Your task to perform on an android device: Open location settings Image 0: 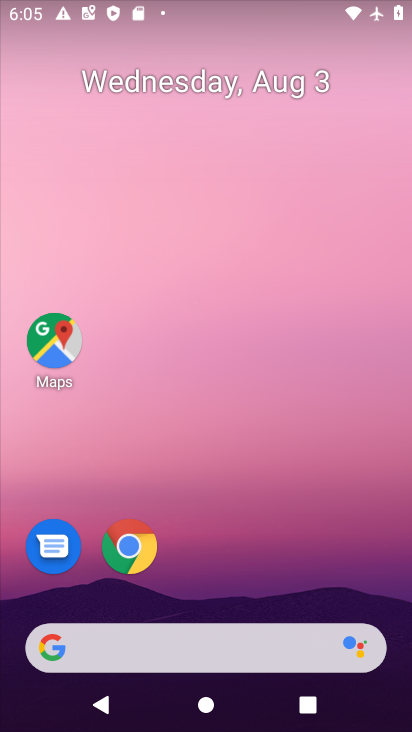
Step 0: press home button
Your task to perform on an android device: Open location settings Image 1: 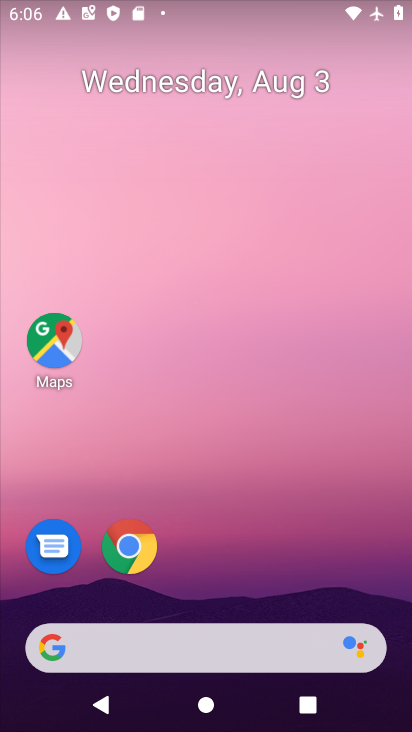
Step 1: drag from (230, 619) to (313, 140)
Your task to perform on an android device: Open location settings Image 2: 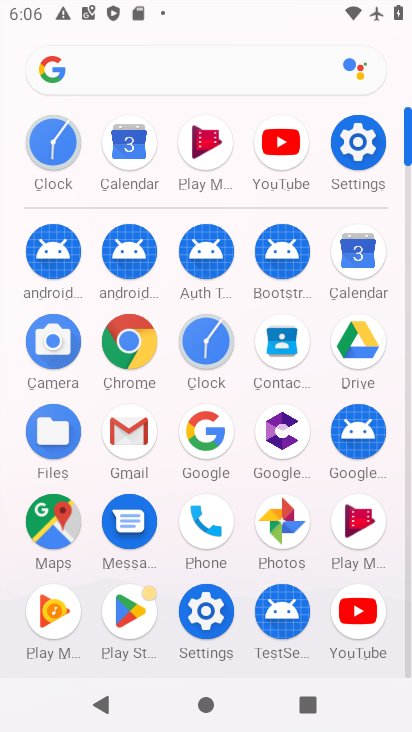
Step 2: click (359, 177)
Your task to perform on an android device: Open location settings Image 3: 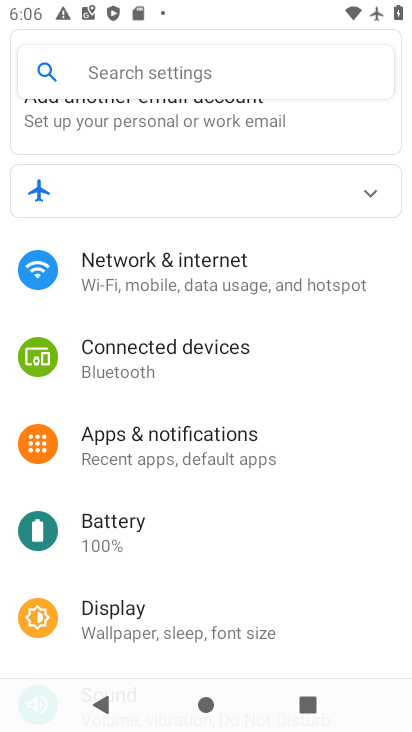
Step 3: drag from (330, 583) to (383, 155)
Your task to perform on an android device: Open location settings Image 4: 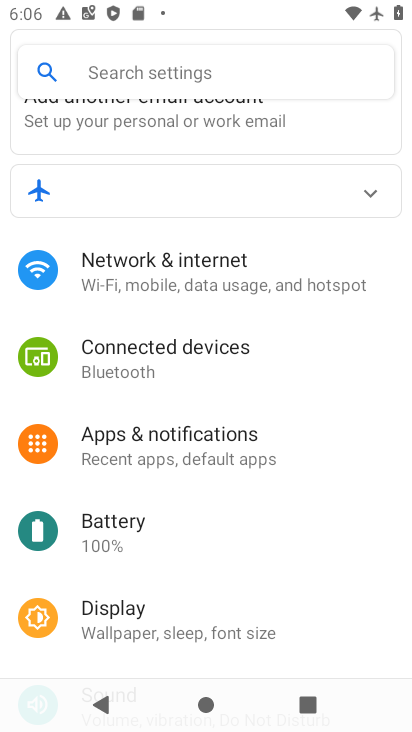
Step 4: drag from (295, 529) to (323, 65)
Your task to perform on an android device: Open location settings Image 5: 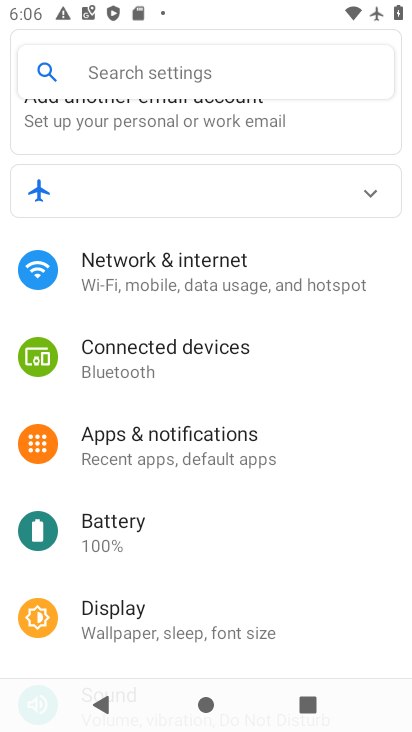
Step 5: drag from (330, 606) to (371, 139)
Your task to perform on an android device: Open location settings Image 6: 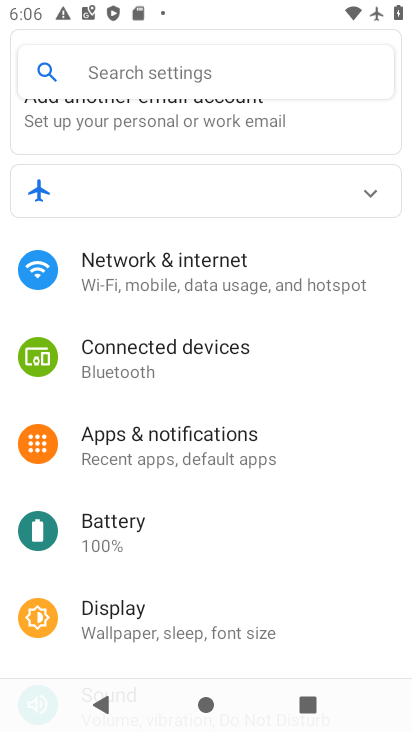
Step 6: drag from (336, 634) to (355, 139)
Your task to perform on an android device: Open location settings Image 7: 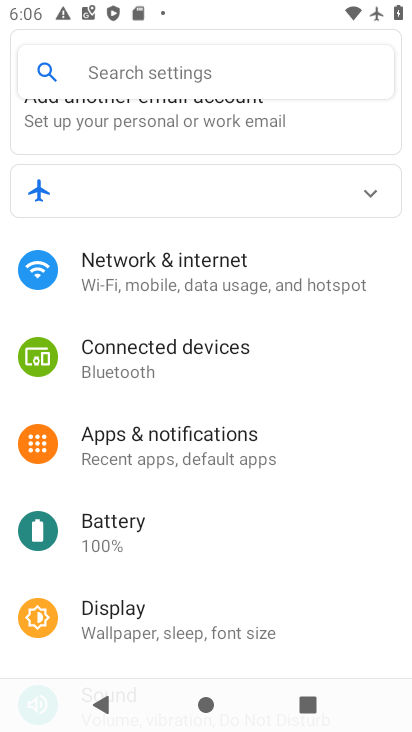
Step 7: drag from (155, 571) to (291, 151)
Your task to perform on an android device: Open location settings Image 8: 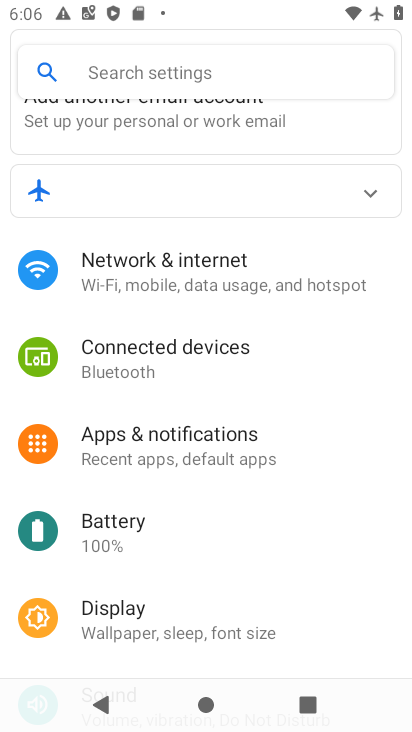
Step 8: drag from (366, 553) to (273, 55)
Your task to perform on an android device: Open location settings Image 9: 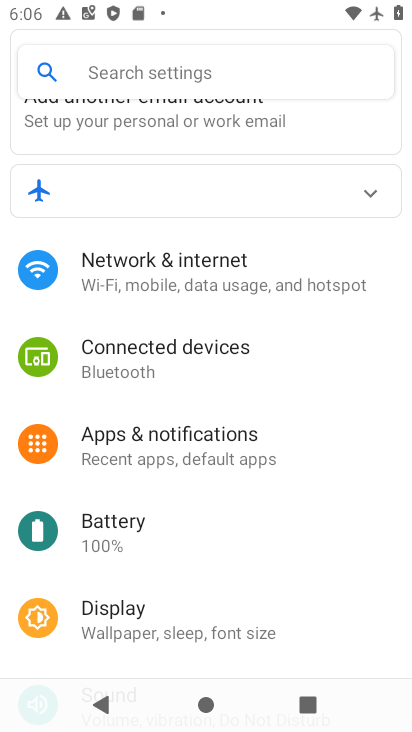
Step 9: drag from (242, 587) to (239, 42)
Your task to perform on an android device: Open location settings Image 10: 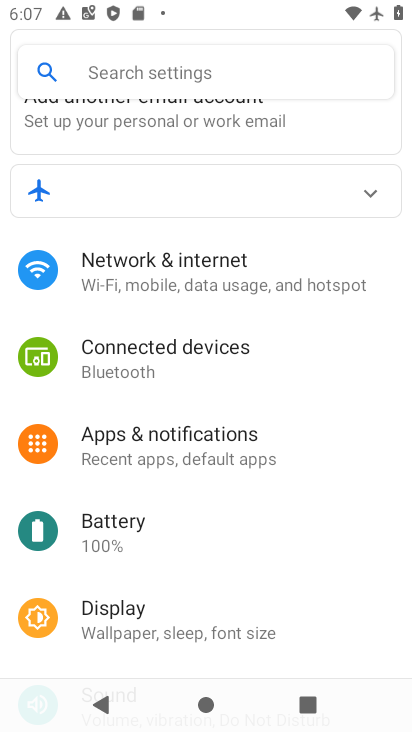
Step 10: drag from (323, 580) to (287, 15)
Your task to perform on an android device: Open location settings Image 11: 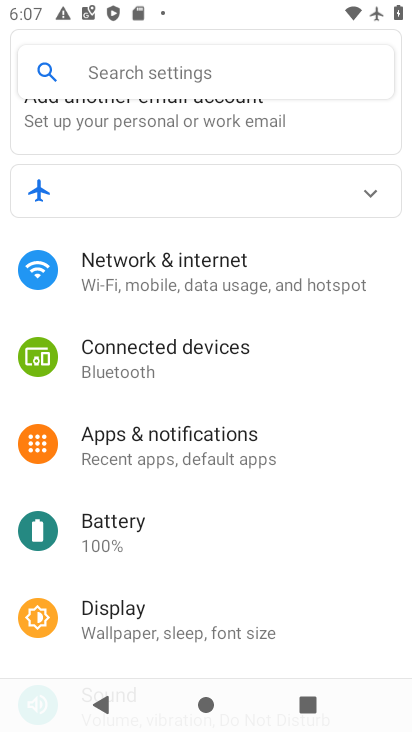
Step 11: drag from (251, 541) to (227, 2)
Your task to perform on an android device: Open location settings Image 12: 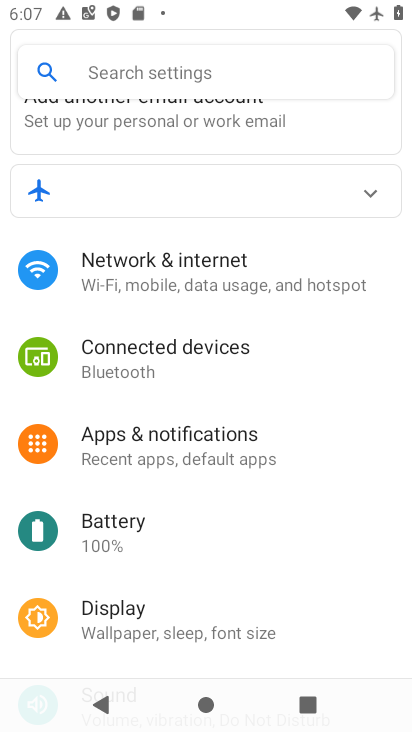
Step 12: drag from (345, 618) to (329, 156)
Your task to perform on an android device: Open location settings Image 13: 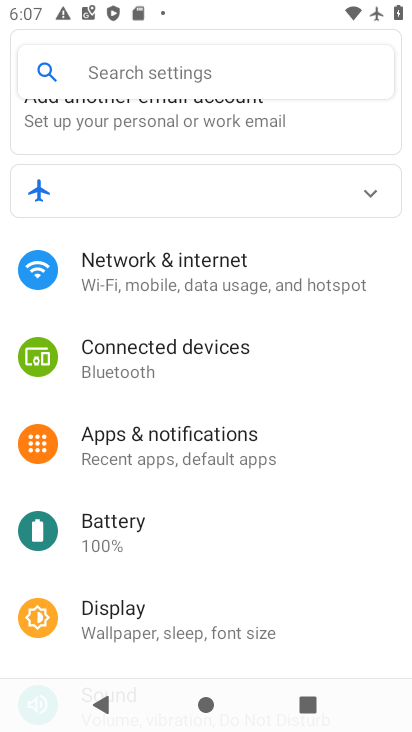
Step 13: drag from (343, 574) to (371, 68)
Your task to perform on an android device: Open location settings Image 14: 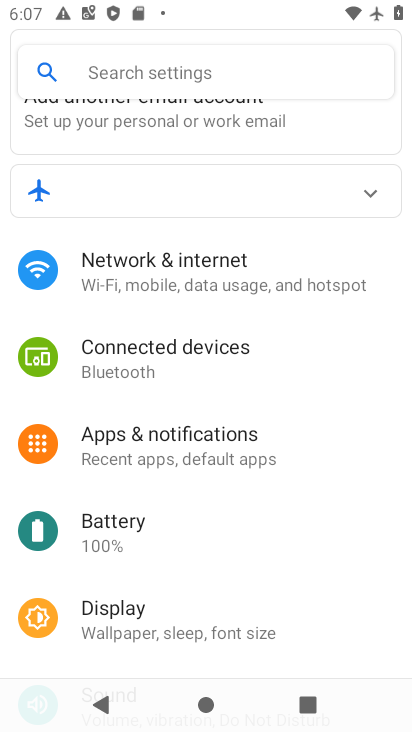
Step 14: drag from (348, 620) to (411, 376)
Your task to perform on an android device: Open location settings Image 15: 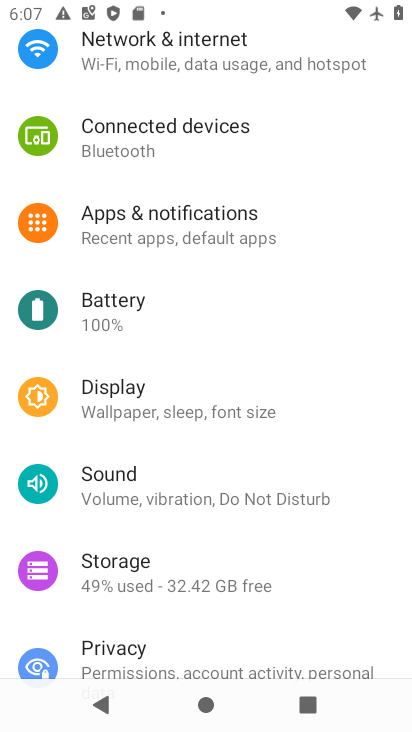
Step 15: drag from (334, 577) to (352, 260)
Your task to perform on an android device: Open location settings Image 16: 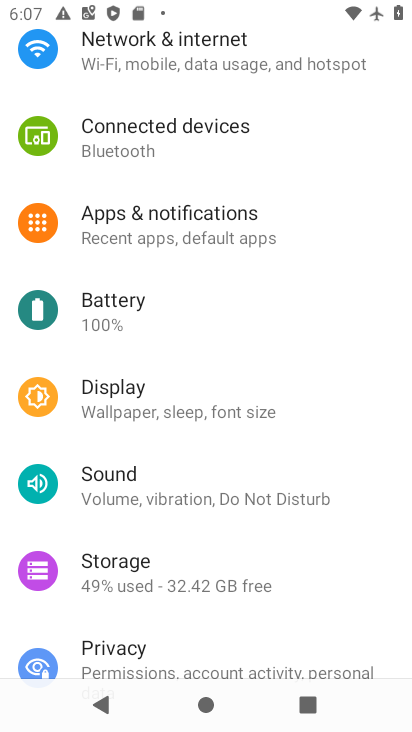
Step 16: drag from (389, 617) to (393, 116)
Your task to perform on an android device: Open location settings Image 17: 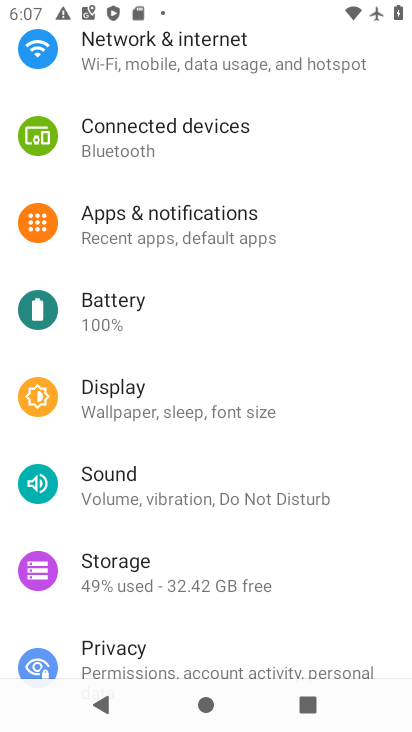
Step 17: drag from (310, 606) to (346, 68)
Your task to perform on an android device: Open location settings Image 18: 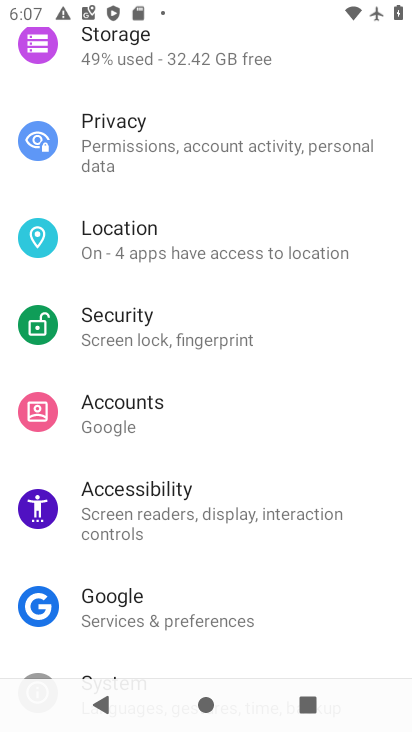
Step 18: click (125, 245)
Your task to perform on an android device: Open location settings Image 19: 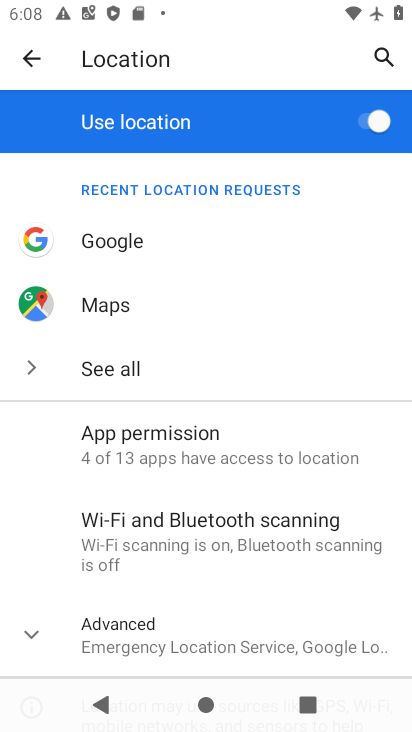
Step 19: task complete